Your task to perform on an android device: turn on wifi Image 0: 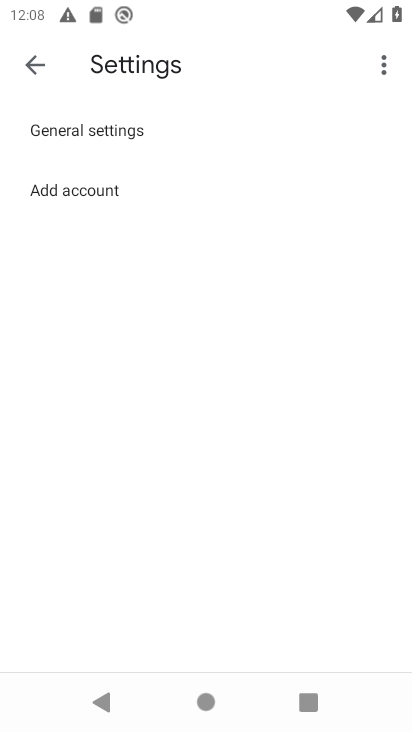
Step 0: press home button
Your task to perform on an android device: turn on wifi Image 1: 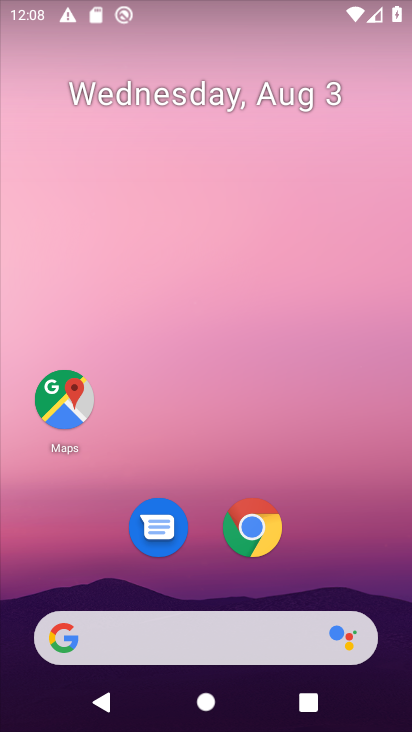
Step 1: drag from (56, 574) to (308, 138)
Your task to perform on an android device: turn on wifi Image 2: 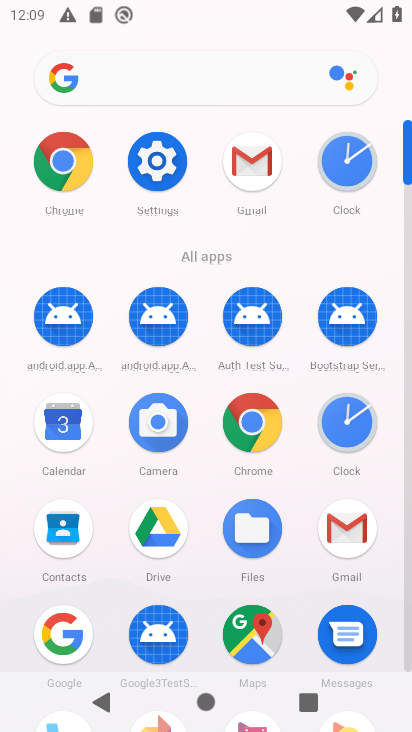
Step 2: drag from (199, 502) to (242, 273)
Your task to perform on an android device: turn on wifi Image 3: 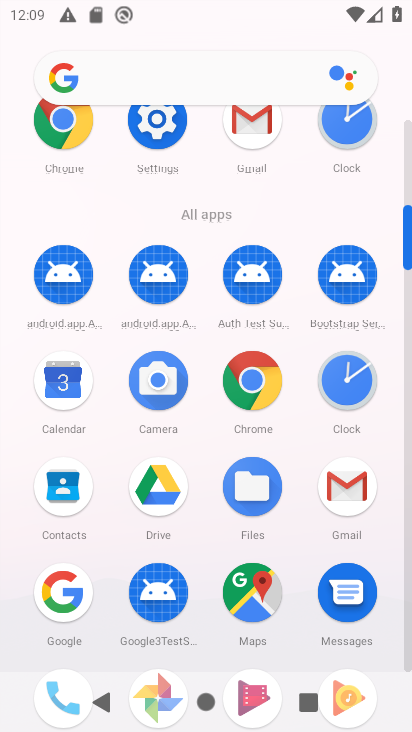
Step 3: drag from (244, 664) to (289, 161)
Your task to perform on an android device: turn on wifi Image 4: 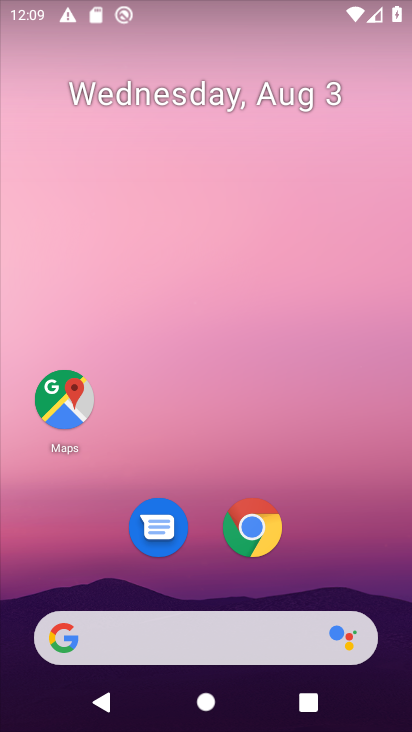
Step 4: drag from (57, 643) to (240, 34)
Your task to perform on an android device: turn on wifi Image 5: 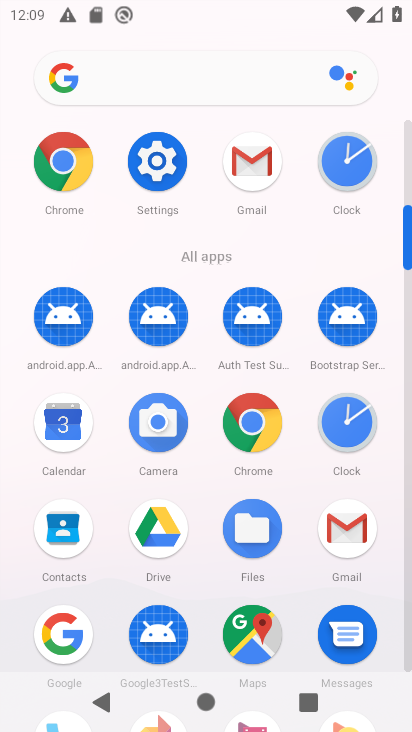
Step 5: drag from (196, 534) to (213, 132)
Your task to perform on an android device: turn on wifi Image 6: 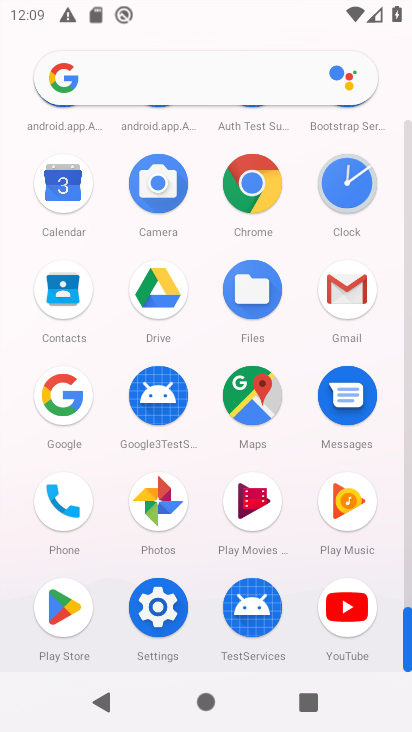
Step 6: click (158, 610)
Your task to perform on an android device: turn on wifi Image 7: 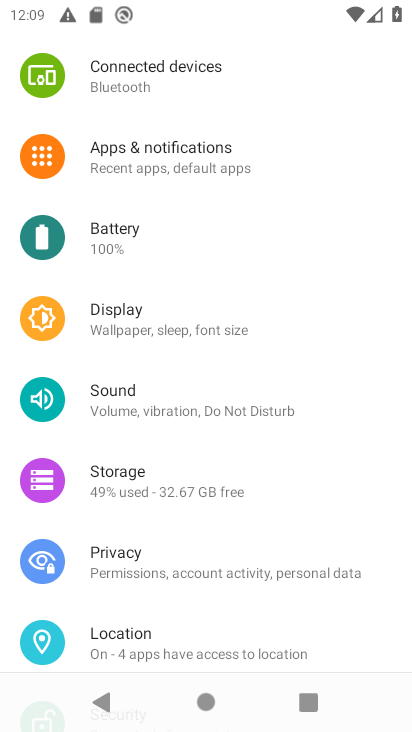
Step 7: click (160, 163)
Your task to perform on an android device: turn on wifi Image 8: 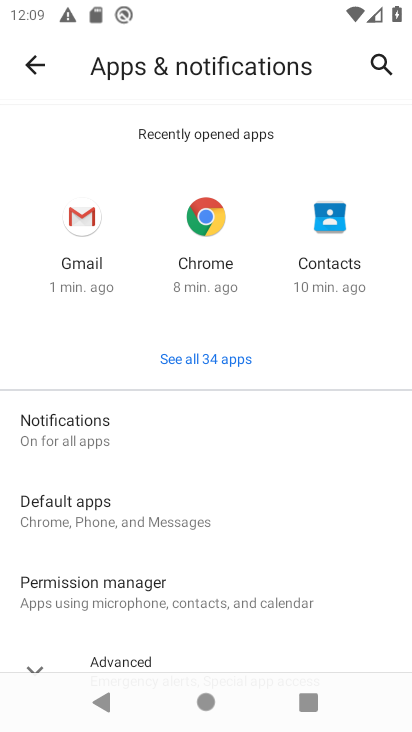
Step 8: drag from (173, 547) to (233, 41)
Your task to perform on an android device: turn on wifi Image 9: 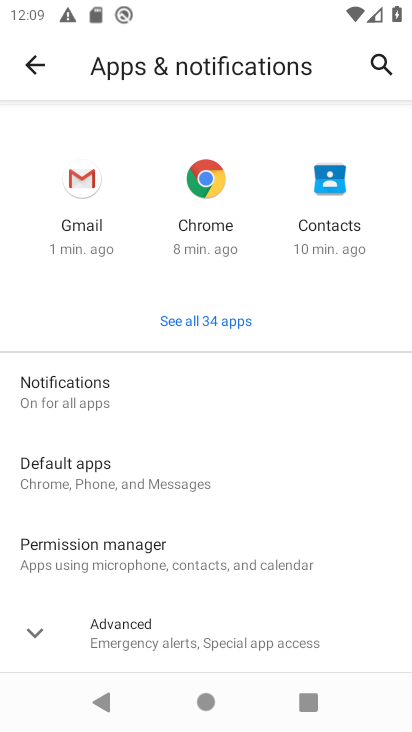
Step 9: click (27, 57)
Your task to perform on an android device: turn on wifi Image 10: 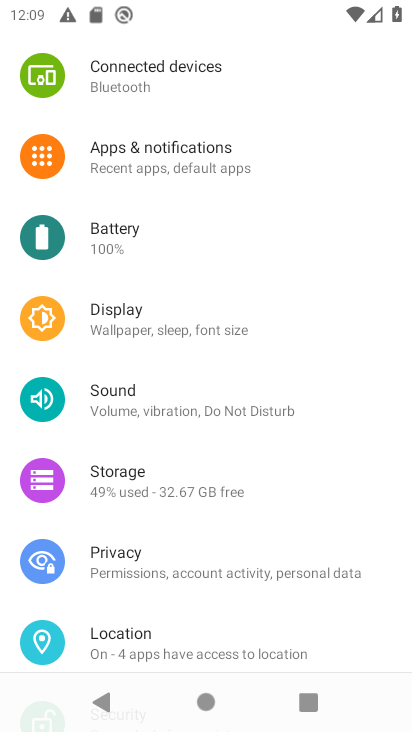
Step 10: drag from (185, 72) to (187, 669)
Your task to perform on an android device: turn on wifi Image 11: 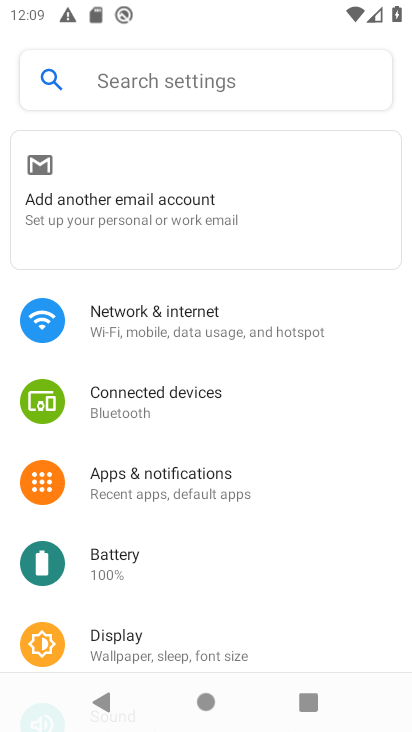
Step 11: click (105, 315)
Your task to perform on an android device: turn on wifi Image 12: 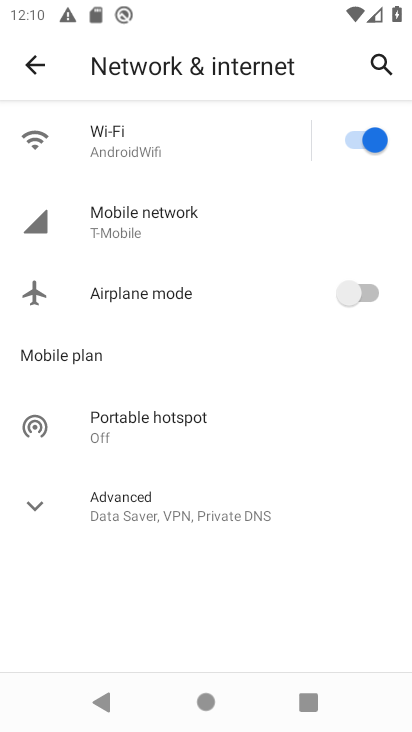
Step 12: task complete